Your task to perform on an android device: Go to Wikipedia Image 0: 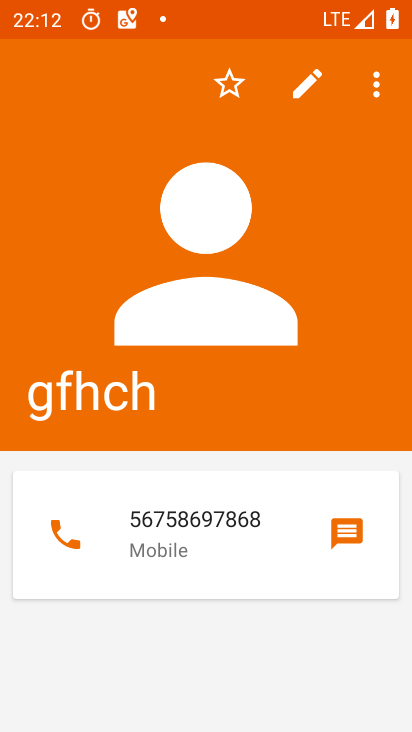
Step 0: press home button
Your task to perform on an android device: Go to Wikipedia Image 1: 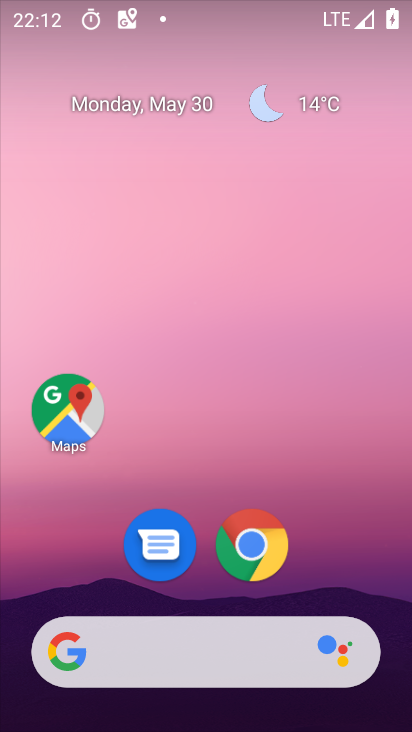
Step 1: click (277, 531)
Your task to perform on an android device: Go to Wikipedia Image 2: 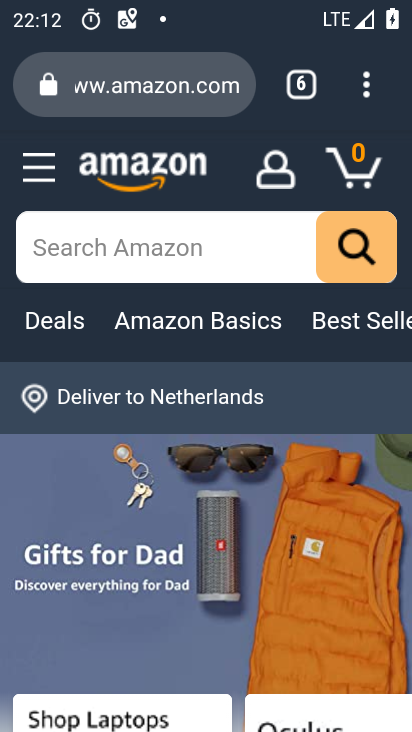
Step 2: click (302, 91)
Your task to perform on an android device: Go to Wikipedia Image 3: 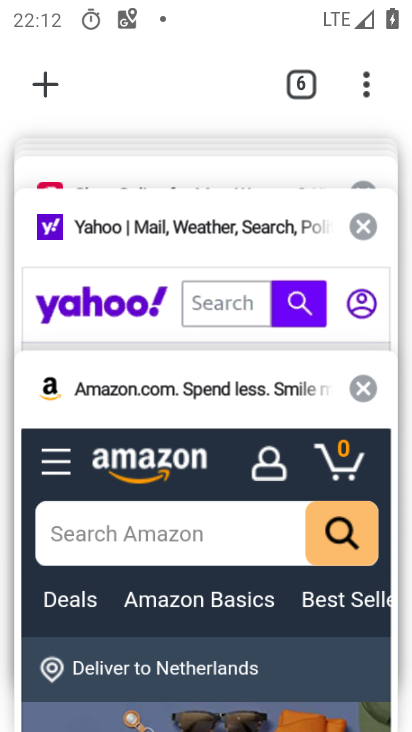
Step 3: drag from (232, 170) to (237, 392)
Your task to perform on an android device: Go to Wikipedia Image 4: 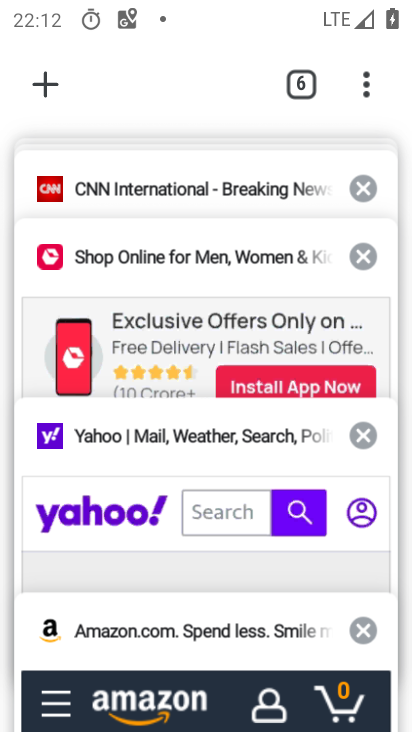
Step 4: drag from (236, 159) to (247, 431)
Your task to perform on an android device: Go to Wikipedia Image 5: 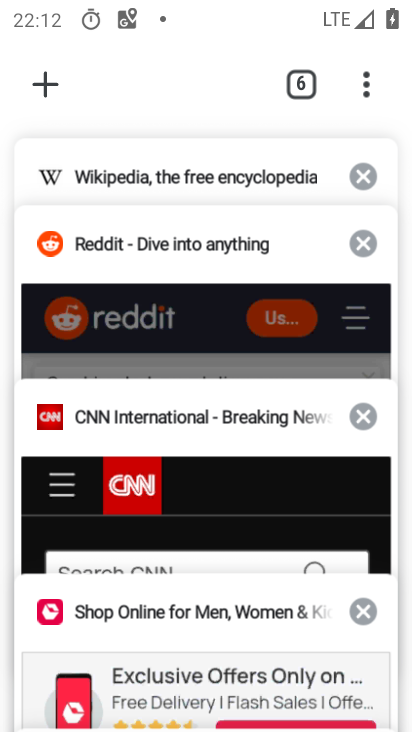
Step 5: click (217, 165)
Your task to perform on an android device: Go to Wikipedia Image 6: 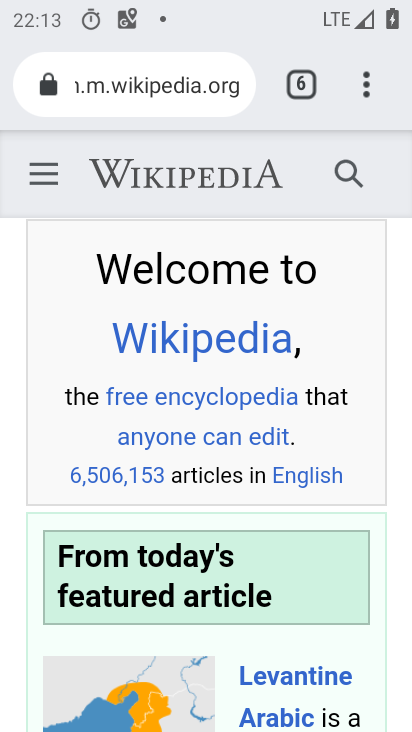
Step 6: task complete